Your task to perform on an android device: turn on wifi Image 0: 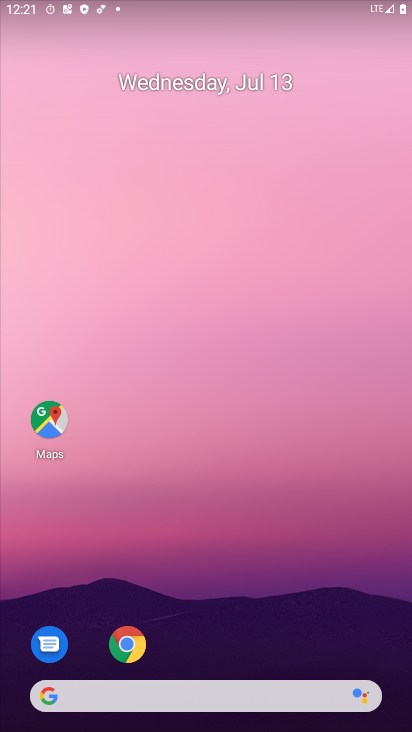
Step 0: drag from (220, 621) to (226, 44)
Your task to perform on an android device: turn on wifi Image 1: 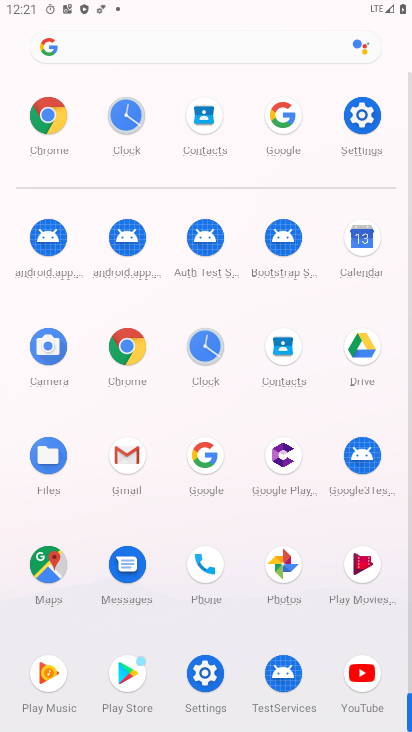
Step 1: click (362, 111)
Your task to perform on an android device: turn on wifi Image 2: 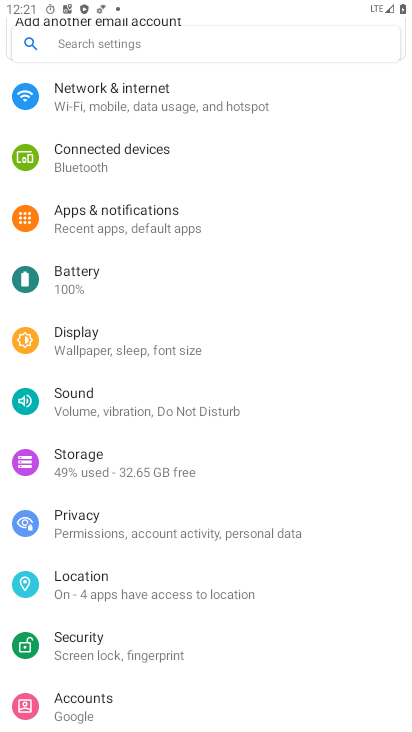
Step 2: drag from (191, 95) to (207, 316)
Your task to perform on an android device: turn on wifi Image 3: 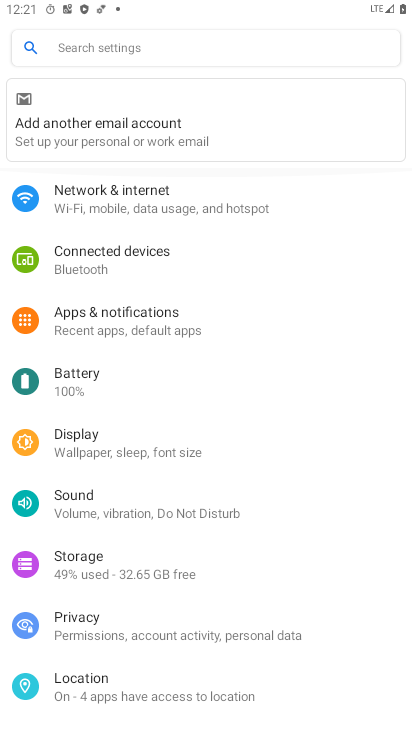
Step 3: click (150, 194)
Your task to perform on an android device: turn on wifi Image 4: 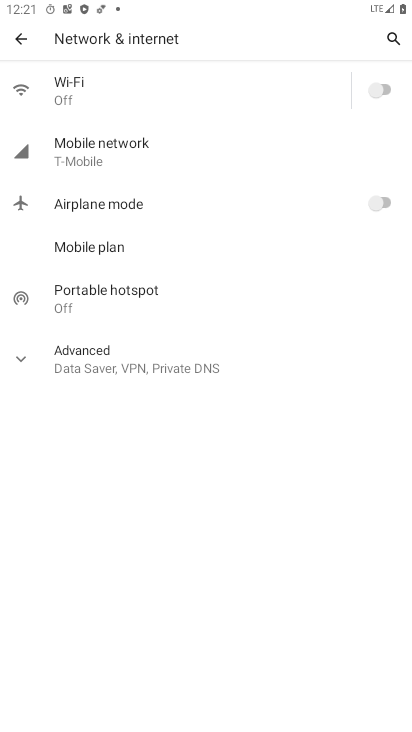
Step 4: click (380, 85)
Your task to perform on an android device: turn on wifi Image 5: 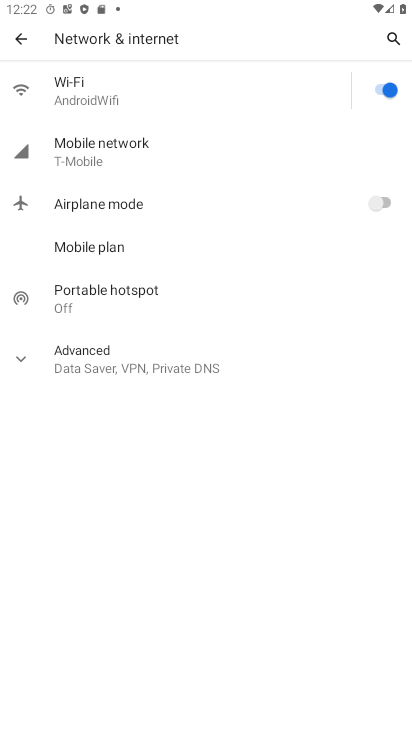
Step 5: task complete